Your task to perform on an android device: Go to accessibility settings Image 0: 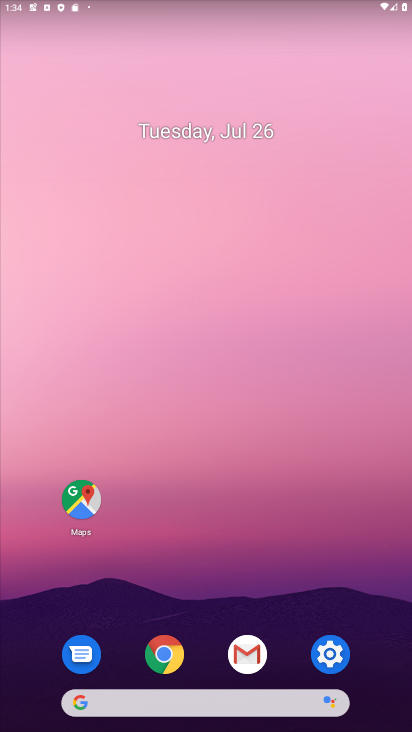
Step 0: click (309, 660)
Your task to perform on an android device: Go to accessibility settings Image 1: 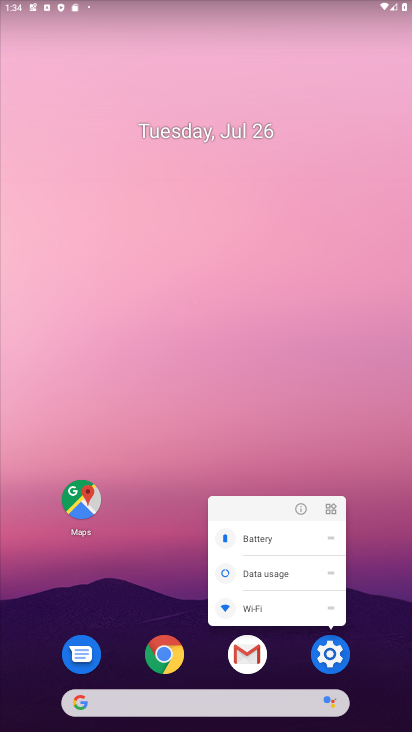
Step 1: click (329, 664)
Your task to perform on an android device: Go to accessibility settings Image 2: 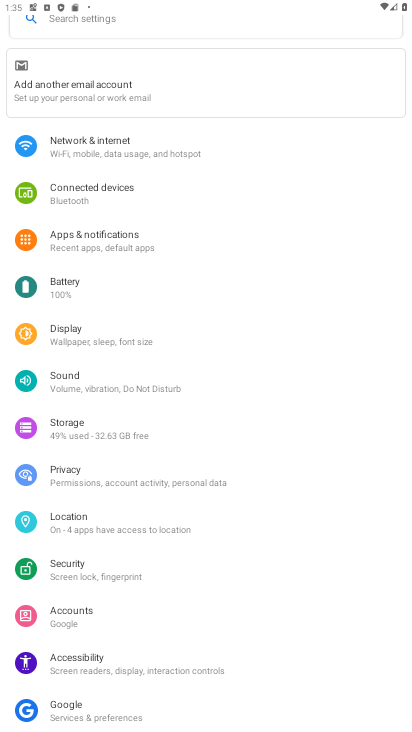
Step 2: click (79, 26)
Your task to perform on an android device: Go to accessibility settings Image 3: 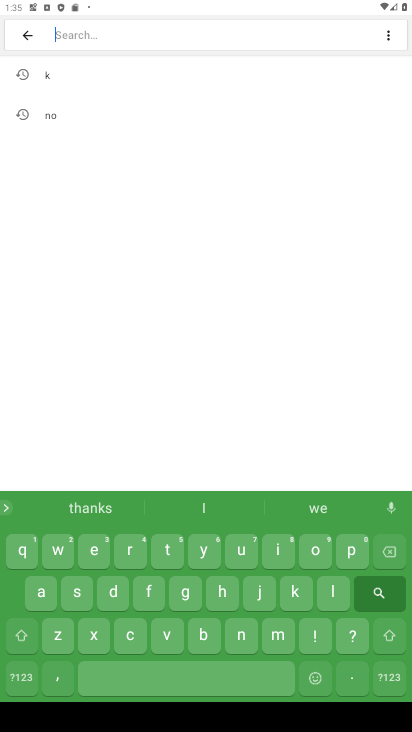
Step 3: click (45, 596)
Your task to perform on an android device: Go to accessibility settings Image 4: 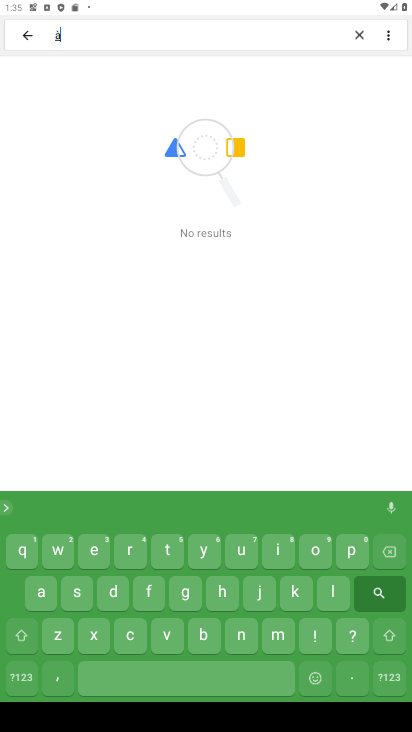
Step 4: click (126, 635)
Your task to perform on an android device: Go to accessibility settings Image 5: 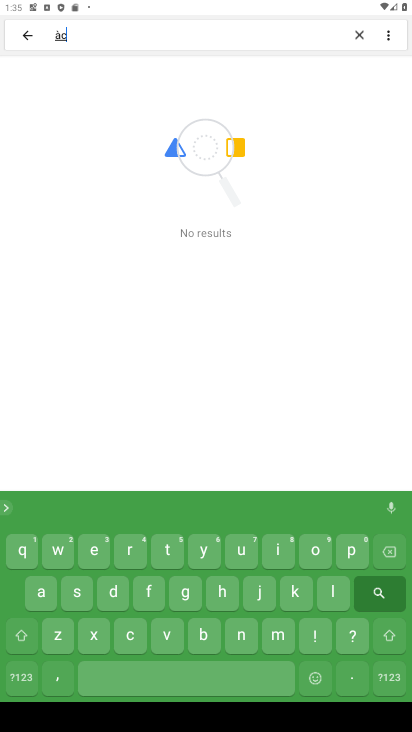
Step 5: click (359, 43)
Your task to perform on an android device: Go to accessibility settings Image 6: 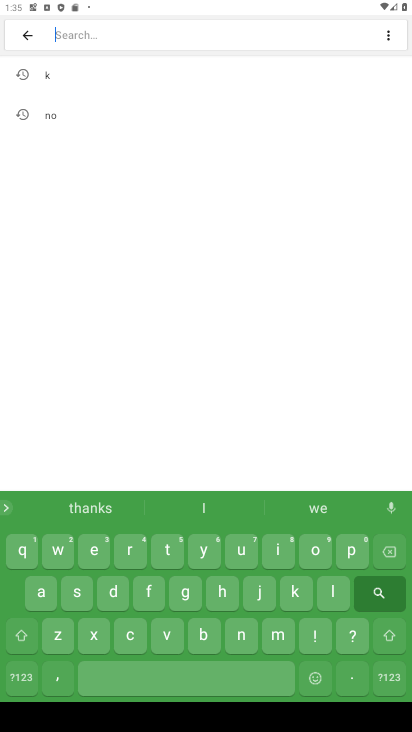
Step 6: click (50, 597)
Your task to perform on an android device: Go to accessibility settings Image 7: 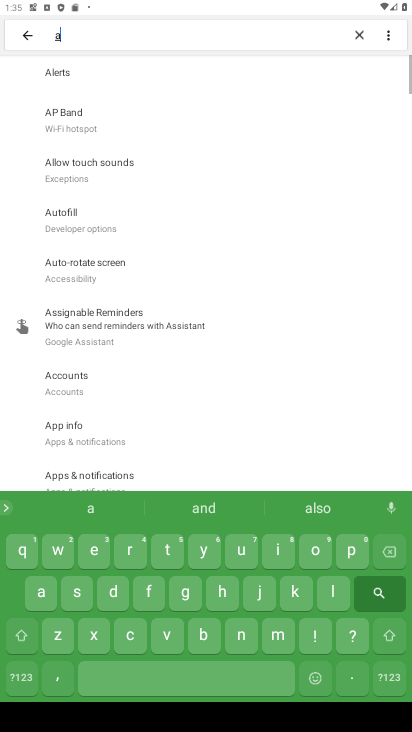
Step 7: click (129, 638)
Your task to perform on an android device: Go to accessibility settings Image 8: 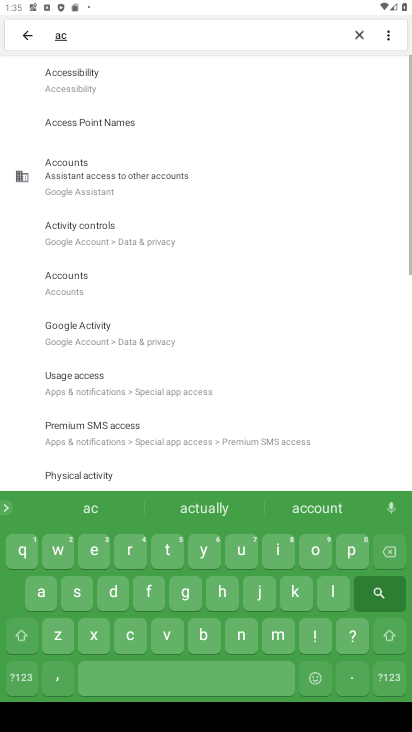
Step 8: click (94, 76)
Your task to perform on an android device: Go to accessibility settings Image 9: 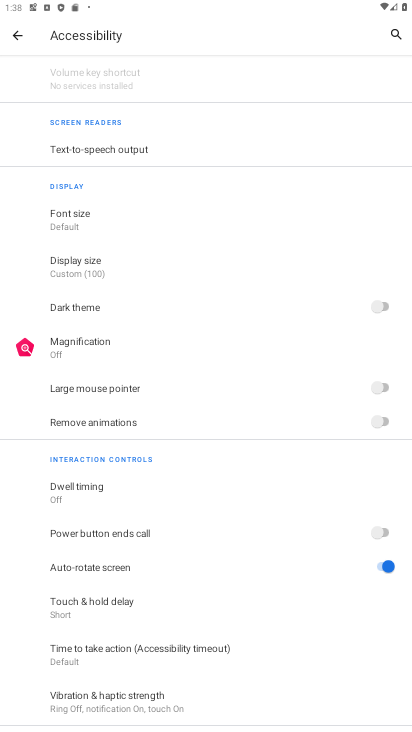
Step 9: task complete